Your task to perform on an android device: turn smart compose on in the gmail app Image 0: 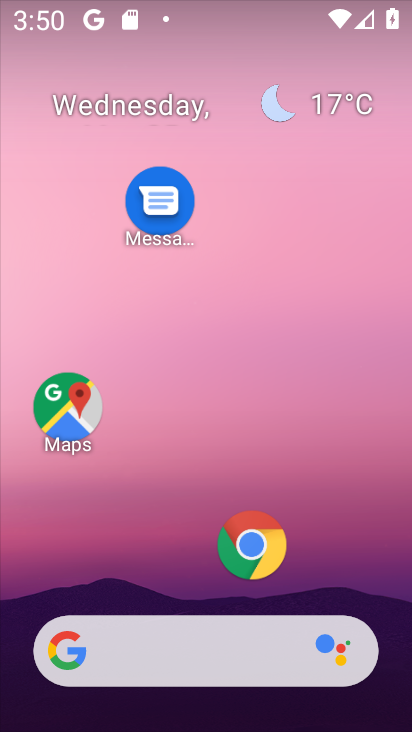
Step 0: drag from (353, 569) to (296, 44)
Your task to perform on an android device: turn smart compose on in the gmail app Image 1: 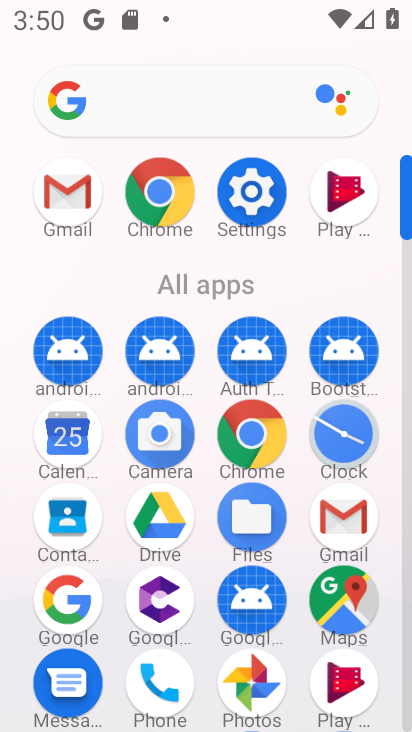
Step 1: click (73, 220)
Your task to perform on an android device: turn smart compose on in the gmail app Image 2: 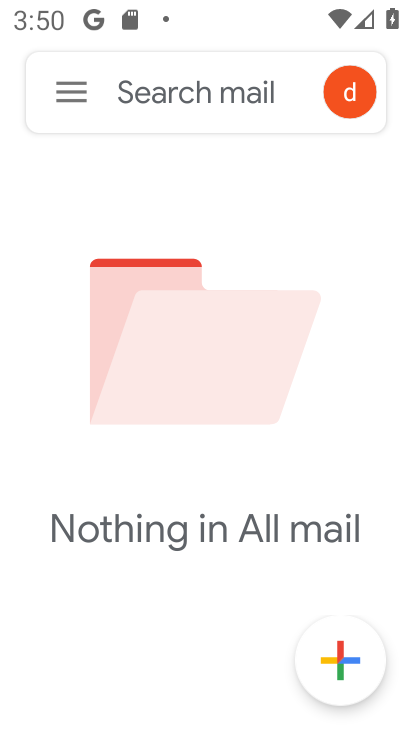
Step 2: click (61, 88)
Your task to perform on an android device: turn smart compose on in the gmail app Image 3: 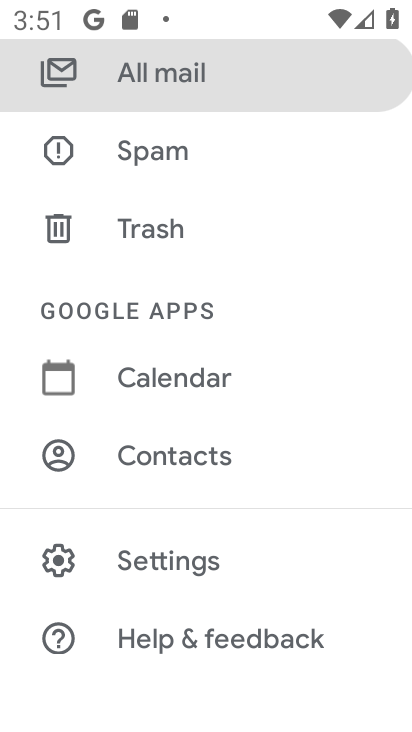
Step 3: drag from (226, 534) to (178, 112)
Your task to perform on an android device: turn smart compose on in the gmail app Image 4: 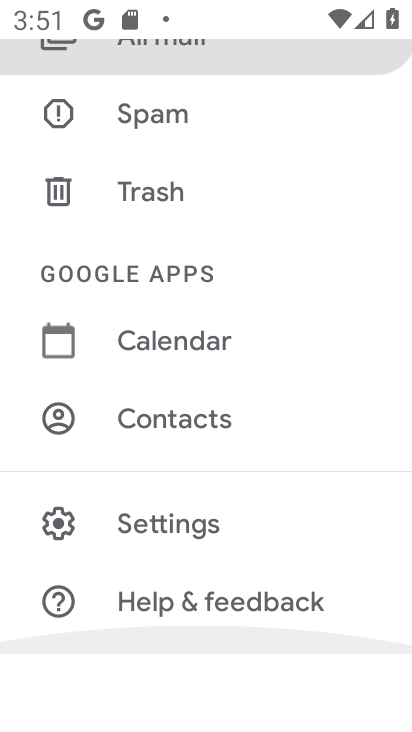
Step 4: drag from (178, 97) to (254, 429)
Your task to perform on an android device: turn smart compose on in the gmail app Image 5: 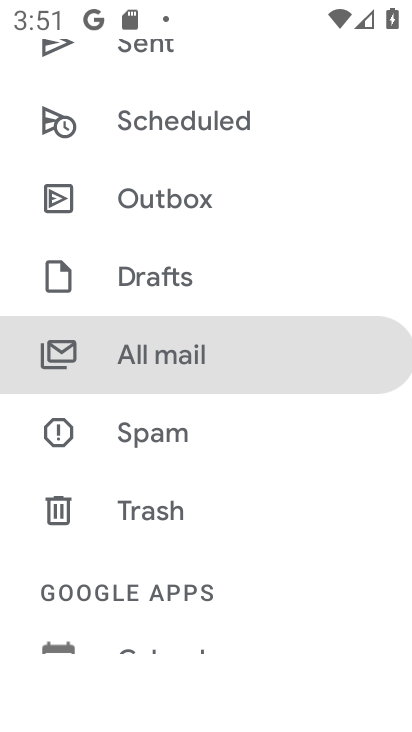
Step 5: drag from (245, 178) to (296, 550)
Your task to perform on an android device: turn smart compose on in the gmail app Image 6: 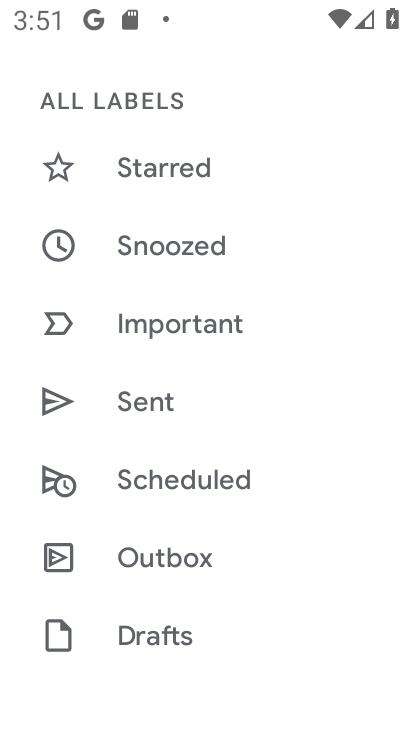
Step 6: drag from (156, 166) to (260, 517)
Your task to perform on an android device: turn smart compose on in the gmail app Image 7: 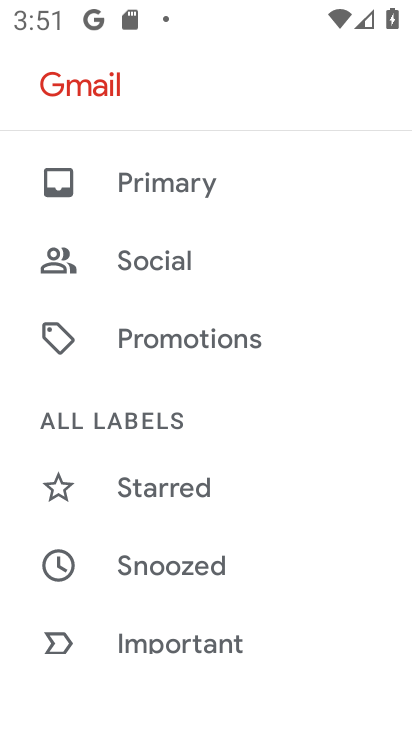
Step 7: drag from (326, 548) to (284, 2)
Your task to perform on an android device: turn smart compose on in the gmail app Image 8: 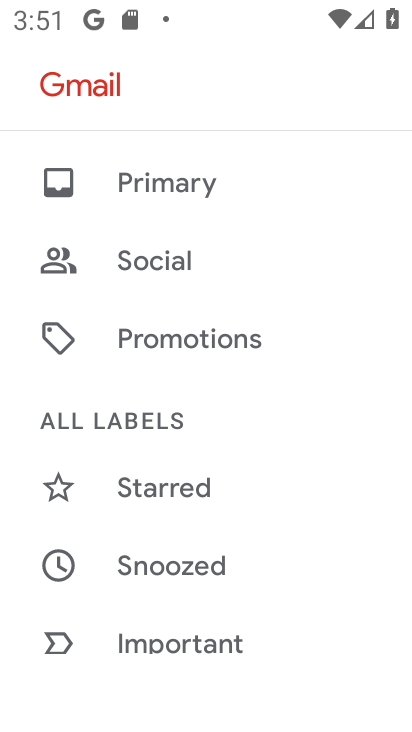
Step 8: drag from (291, 637) to (288, 5)
Your task to perform on an android device: turn smart compose on in the gmail app Image 9: 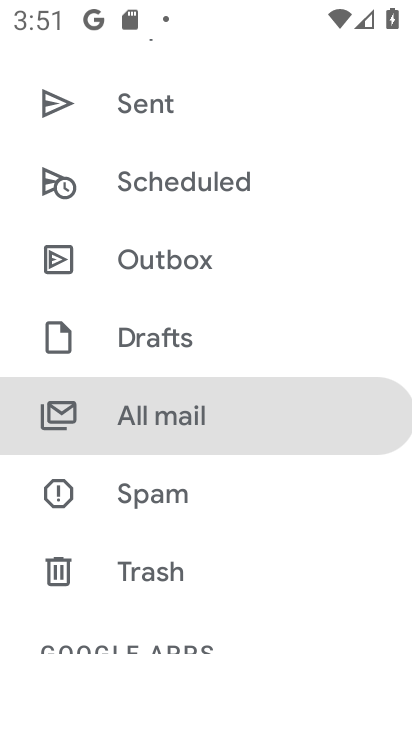
Step 9: drag from (276, 558) to (251, 30)
Your task to perform on an android device: turn smart compose on in the gmail app Image 10: 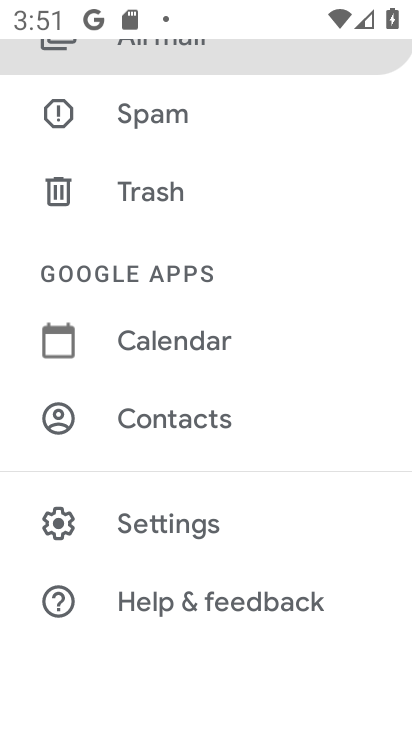
Step 10: click (204, 528)
Your task to perform on an android device: turn smart compose on in the gmail app Image 11: 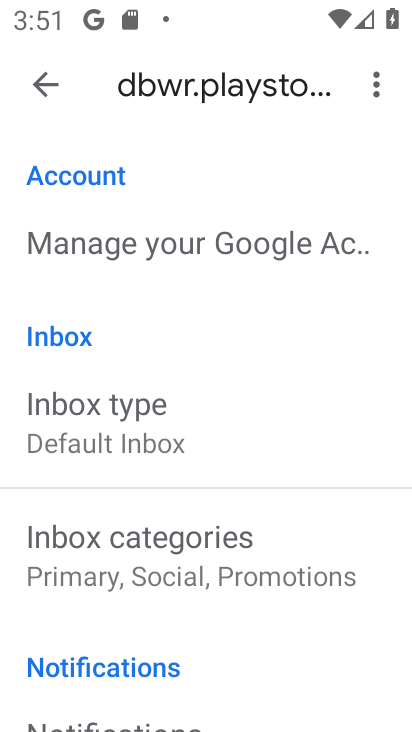
Step 11: drag from (258, 634) to (251, 216)
Your task to perform on an android device: turn smart compose on in the gmail app Image 12: 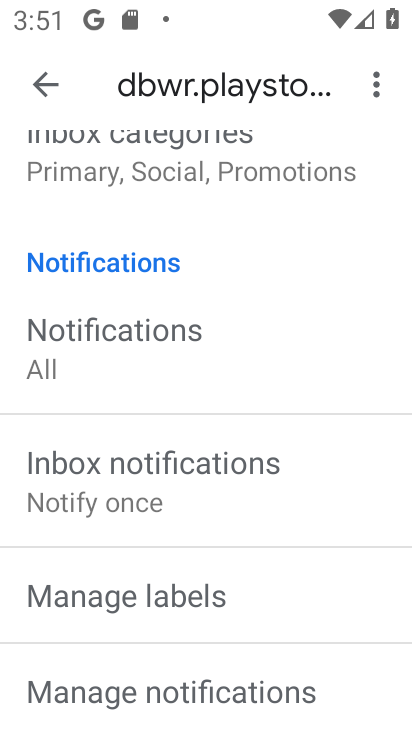
Step 12: drag from (293, 537) to (230, 130)
Your task to perform on an android device: turn smart compose on in the gmail app Image 13: 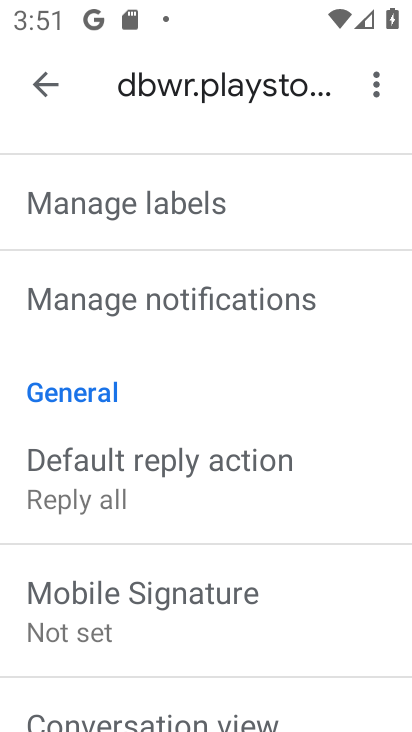
Step 13: drag from (263, 502) to (216, 143)
Your task to perform on an android device: turn smart compose on in the gmail app Image 14: 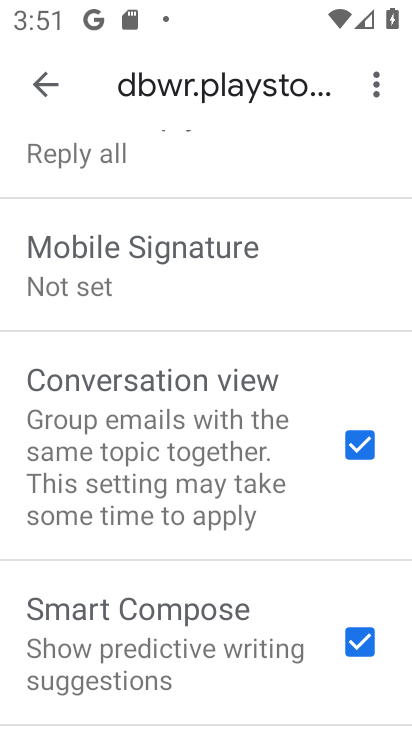
Step 14: drag from (230, 534) to (221, 311)
Your task to perform on an android device: turn smart compose on in the gmail app Image 15: 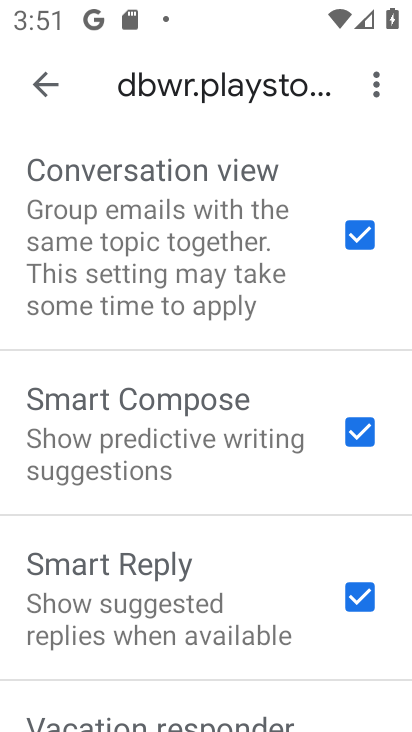
Step 15: click (358, 419)
Your task to perform on an android device: turn smart compose on in the gmail app Image 16: 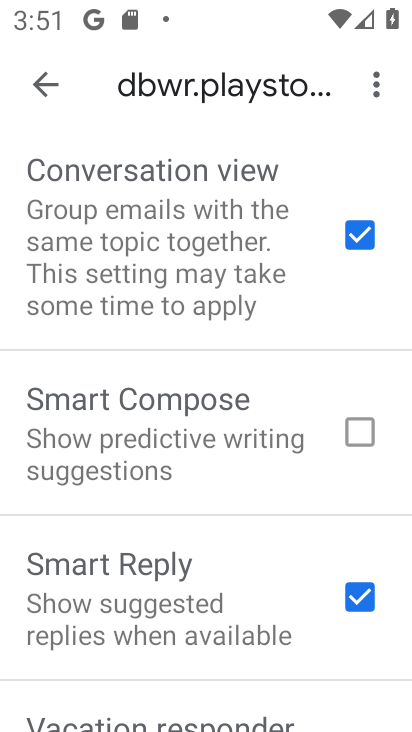
Step 16: task complete